Your task to perform on an android device: find which apps use the phone's location Image 0: 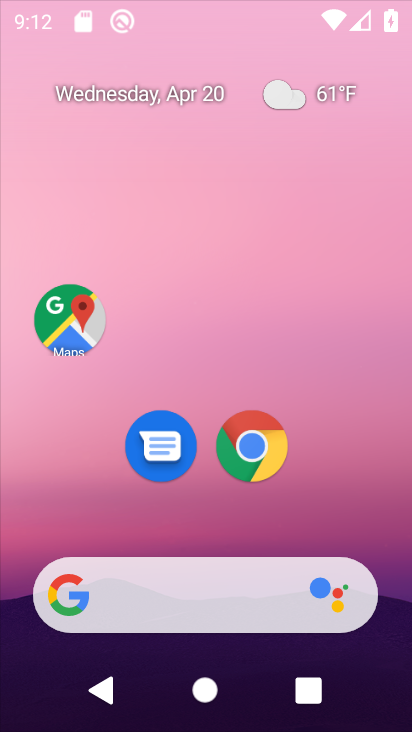
Step 0: drag from (368, 449) to (318, 112)
Your task to perform on an android device: find which apps use the phone's location Image 1: 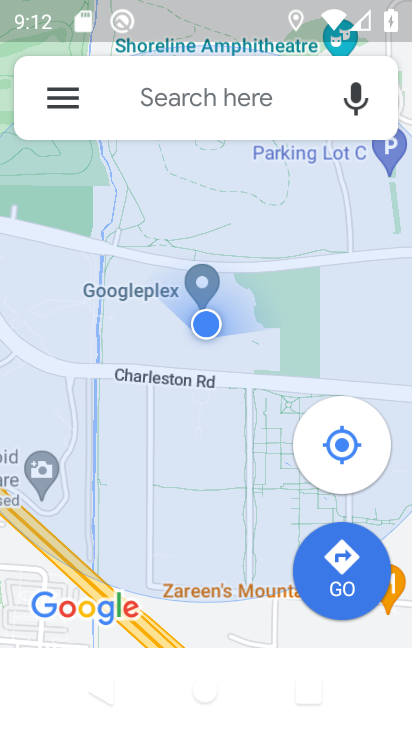
Step 1: press home button
Your task to perform on an android device: find which apps use the phone's location Image 2: 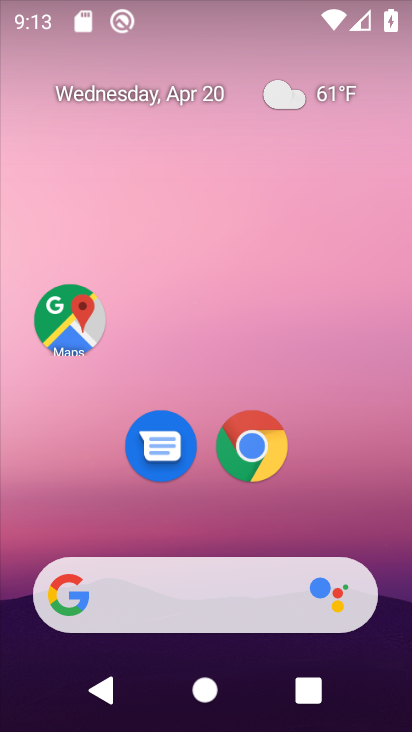
Step 2: drag from (391, 521) to (390, 100)
Your task to perform on an android device: find which apps use the phone's location Image 3: 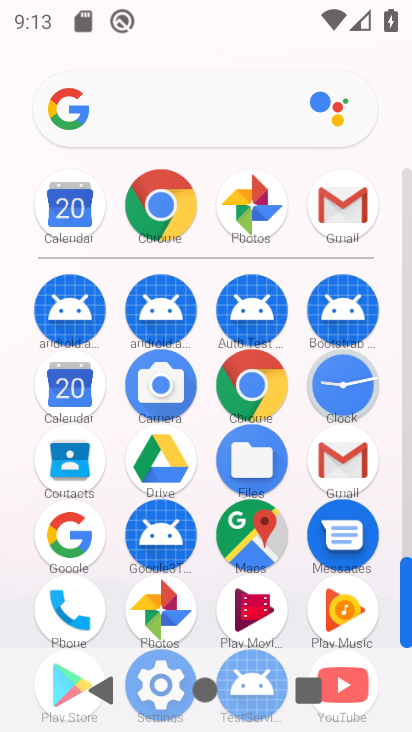
Step 3: drag from (207, 568) to (191, 331)
Your task to perform on an android device: find which apps use the phone's location Image 4: 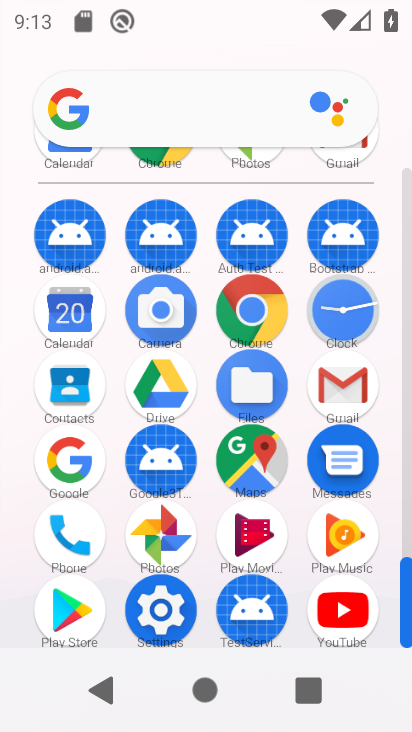
Step 4: click (176, 599)
Your task to perform on an android device: find which apps use the phone's location Image 5: 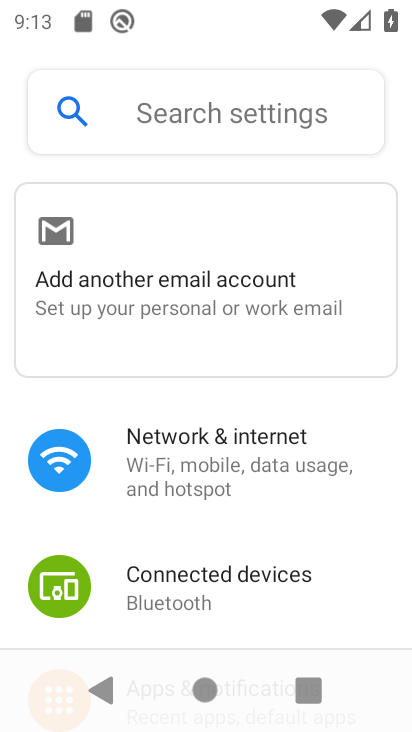
Step 5: drag from (328, 542) to (309, 233)
Your task to perform on an android device: find which apps use the phone's location Image 6: 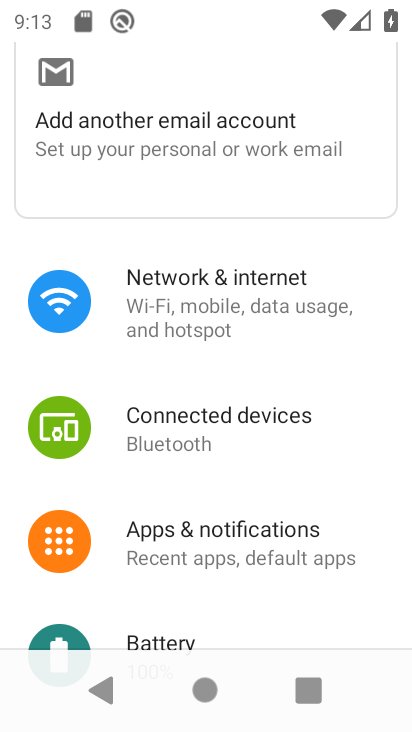
Step 6: drag from (299, 638) to (298, 312)
Your task to perform on an android device: find which apps use the phone's location Image 7: 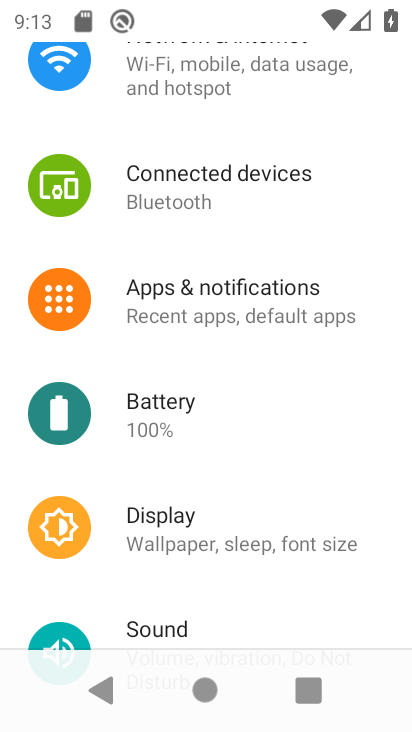
Step 7: drag from (295, 599) to (301, 266)
Your task to perform on an android device: find which apps use the phone's location Image 8: 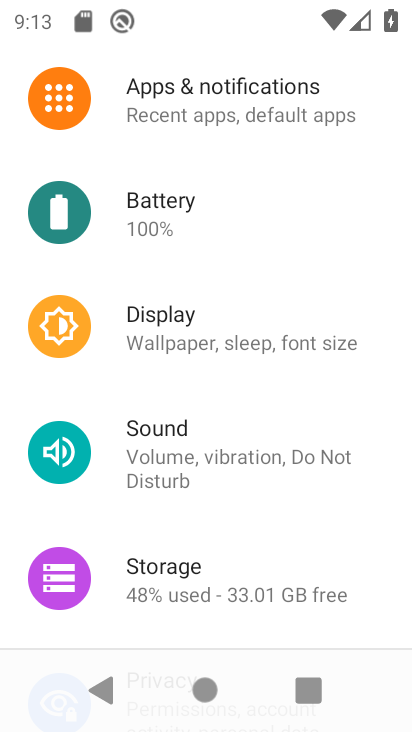
Step 8: drag from (271, 565) to (320, 199)
Your task to perform on an android device: find which apps use the phone's location Image 9: 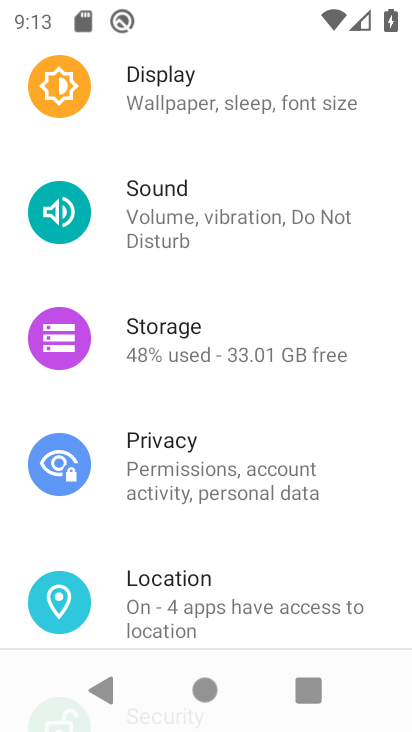
Step 9: click (286, 601)
Your task to perform on an android device: find which apps use the phone's location Image 10: 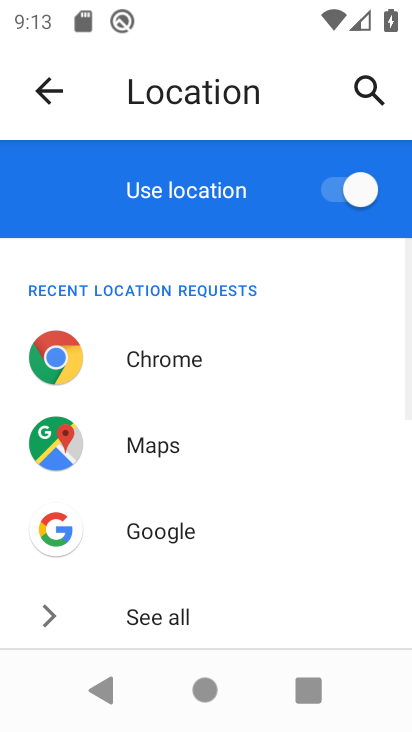
Step 10: drag from (360, 576) to (328, 242)
Your task to perform on an android device: find which apps use the phone's location Image 11: 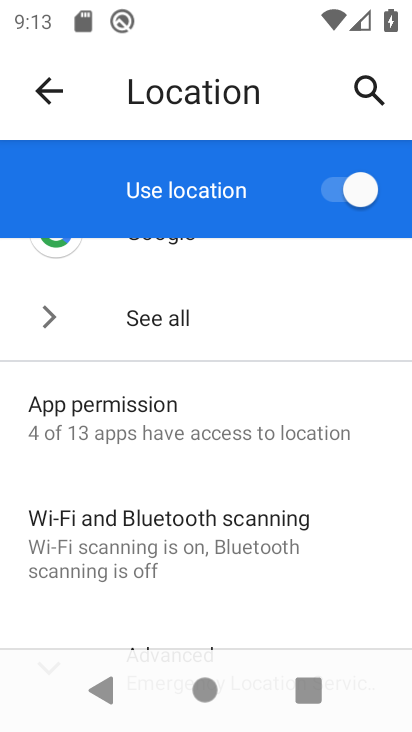
Step 11: drag from (336, 584) to (323, 292)
Your task to perform on an android device: find which apps use the phone's location Image 12: 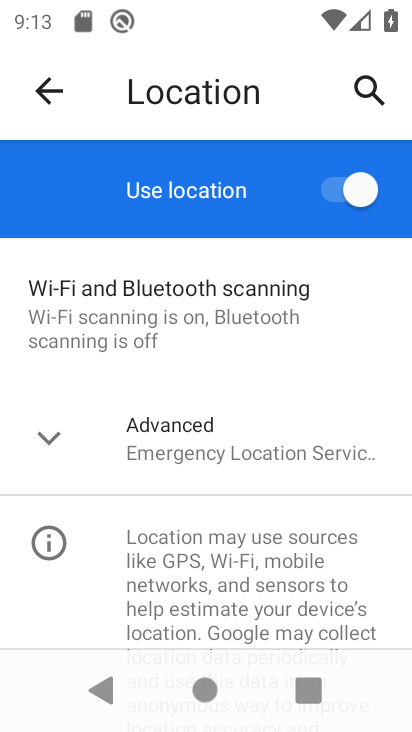
Step 12: click (273, 454)
Your task to perform on an android device: find which apps use the phone's location Image 13: 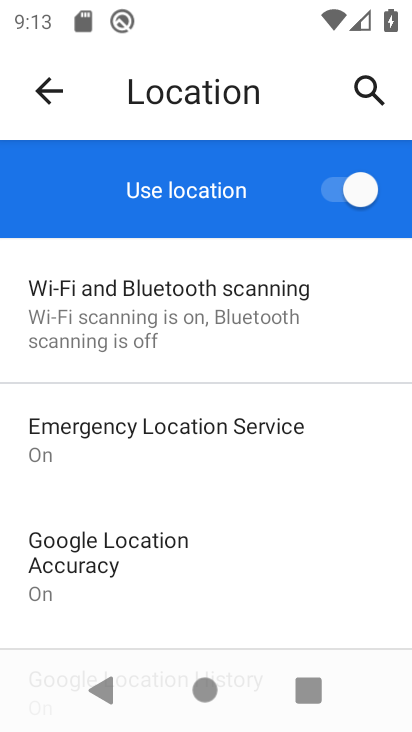
Step 13: drag from (283, 281) to (290, 617)
Your task to perform on an android device: find which apps use the phone's location Image 14: 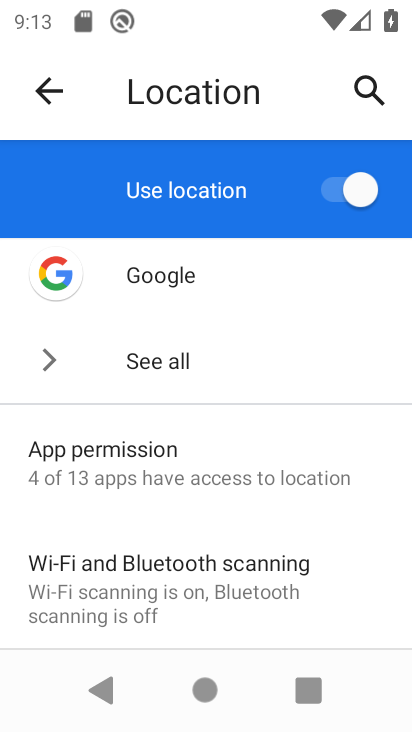
Step 14: drag from (297, 318) to (287, 526)
Your task to perform on an android device: find which apps use the phone's location Image 15: 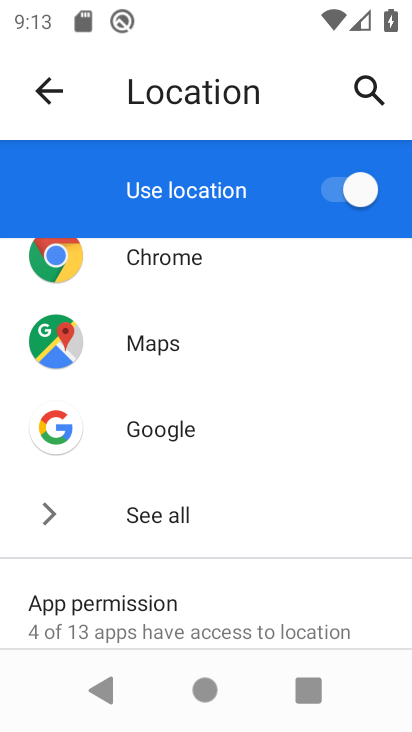
Step 15: click (144, 341)
Your task to perform on an android device: find which apps use the phone's location Image 16: 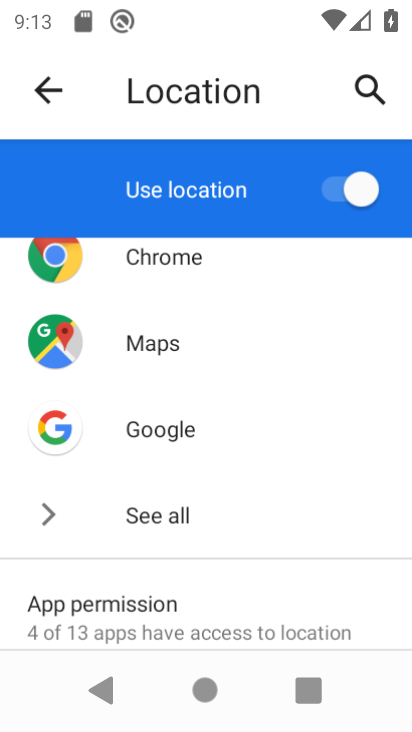
Step 16: task complete